Your task to perform on an android device: open a bookmark in the chrome app Image 0: 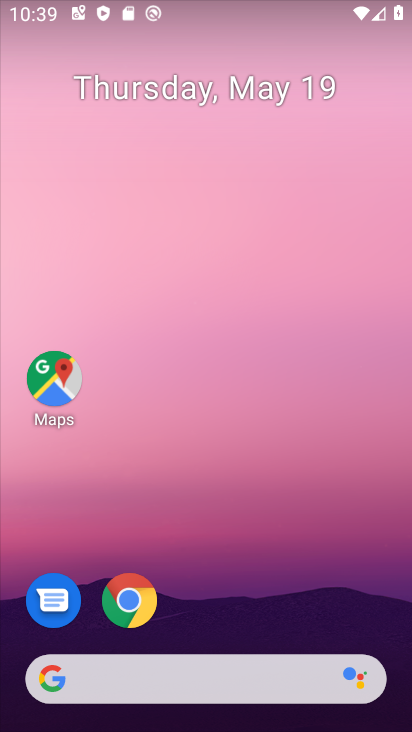
Step 0: press home button
Your task to perform on an android device: open a bookmark in the chrome app Image 1: 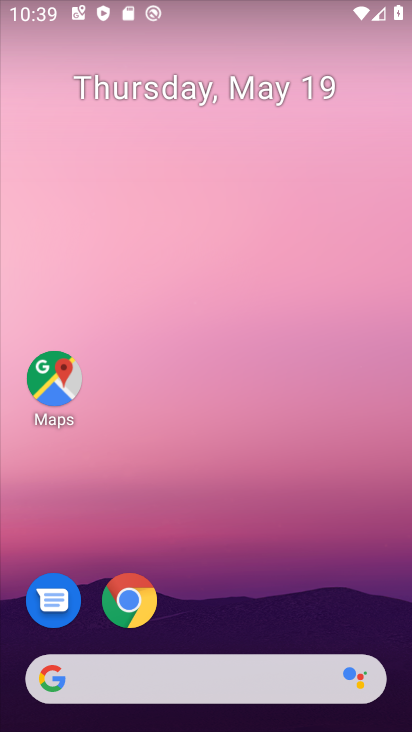
Step 1: click (136, 612)
Your task to perform on an android device: open a bookmark in the chrome app Image 2: 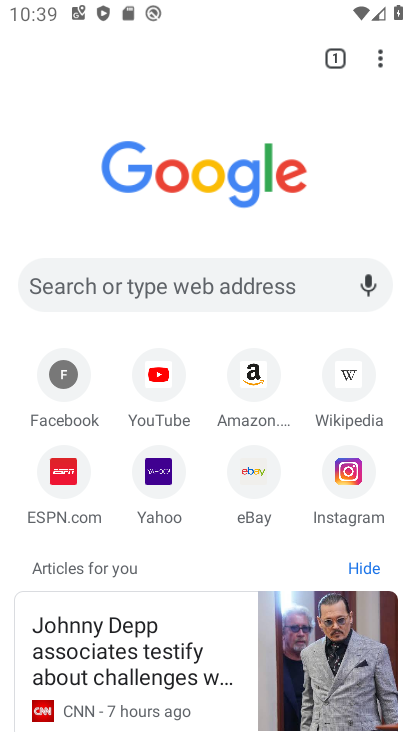
Step 2: drag from (376, 54) to (175, 503)
Your task to perform on an android device: open a bookmark in the chrome app Image 3: 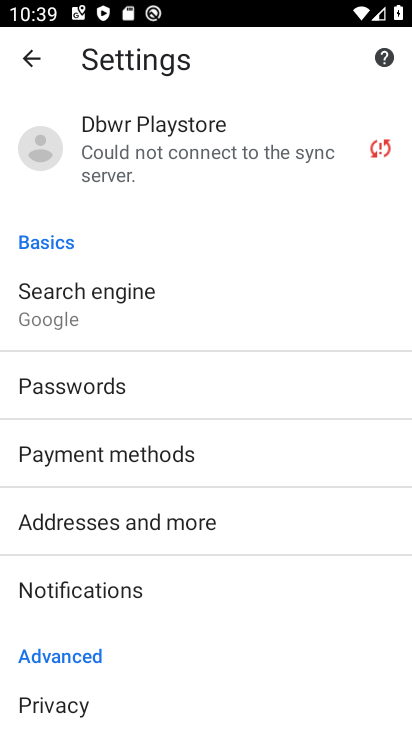
Step 3: click (31, 72)
Your task to perform on an android device: open a bookmark in the chrome app Image 4: 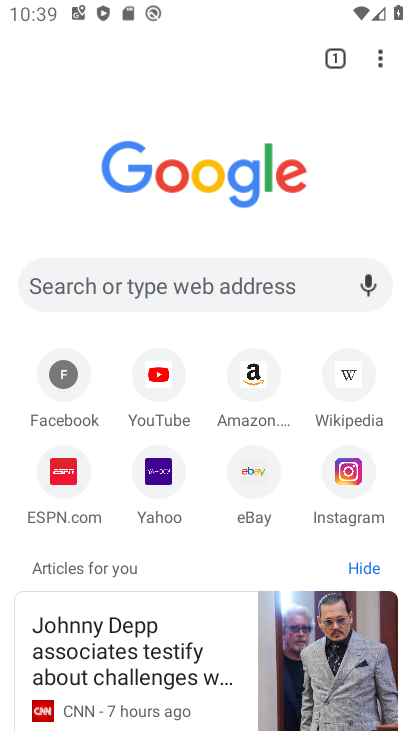
Step 4: task complete